Your task to perform on an android device: Open the stopwatch Image 0: 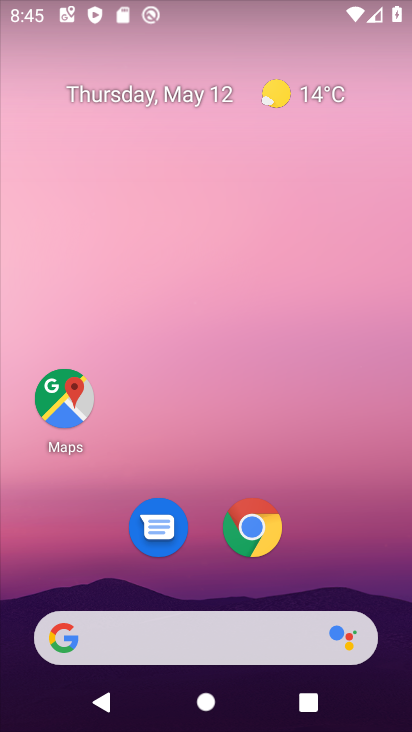
Step 0: drag from (352, 562) to (319, 53)
Your task to perform on an android device: Open the stopwatch Image 1: 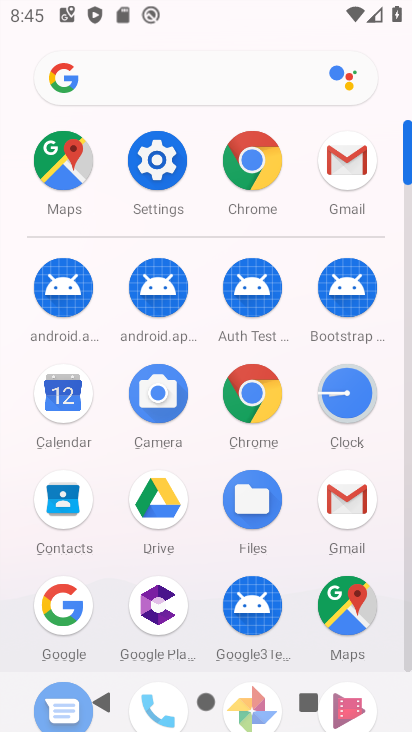
Step 1: click (332, 443)
Your task to perform on an android device: Open the stopwatch Image 2: 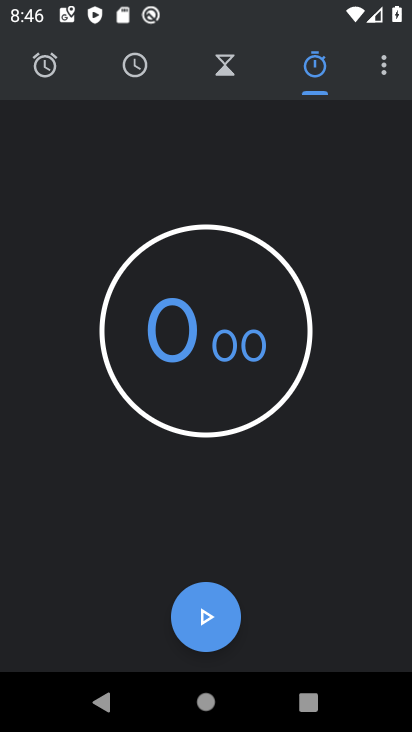
Step 2: task complete